Your task to perform on an android device: Open the calendar and show me this week's events? Image 0: 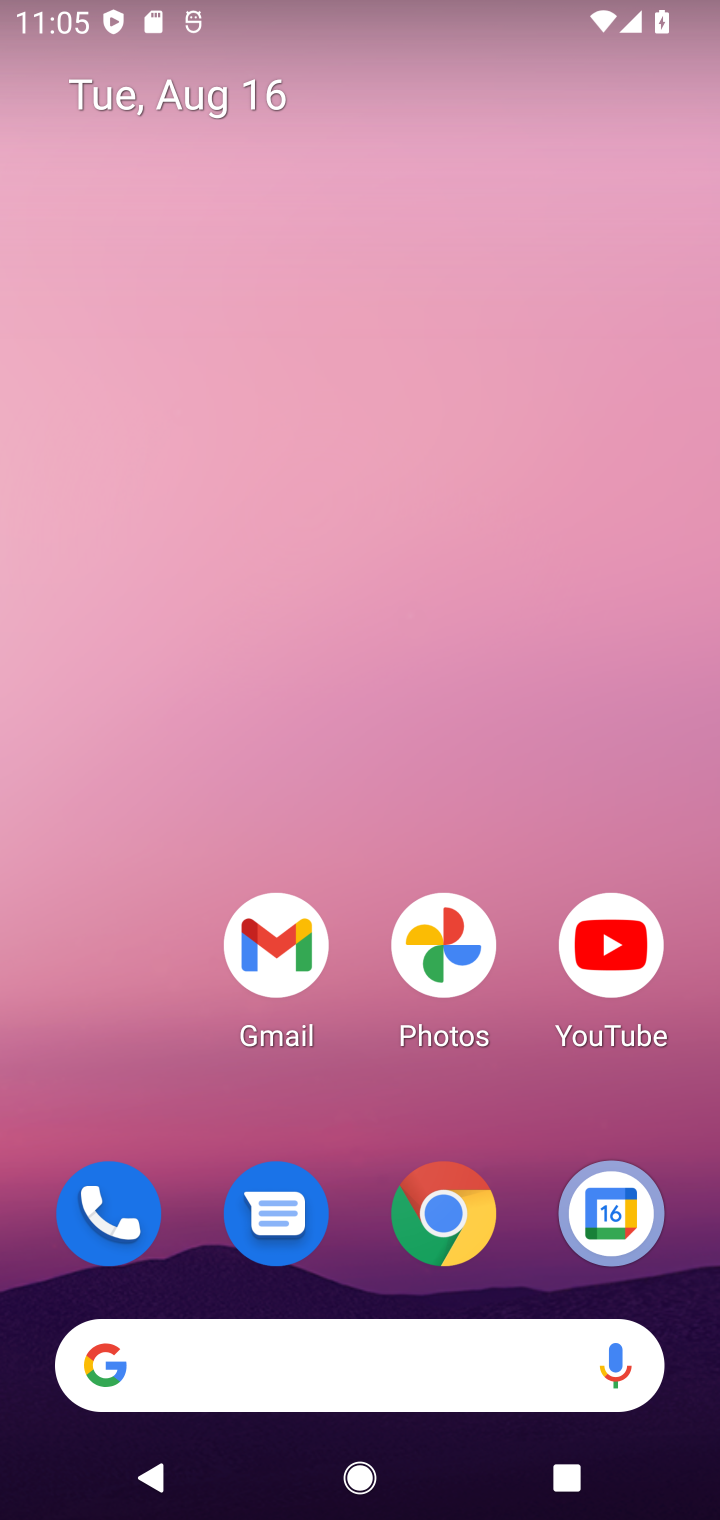
Step 0: drag from (432, 563) to (541, 0)
Your task to perform on an android device: Open the calendar and show me this week's events? Image 1: 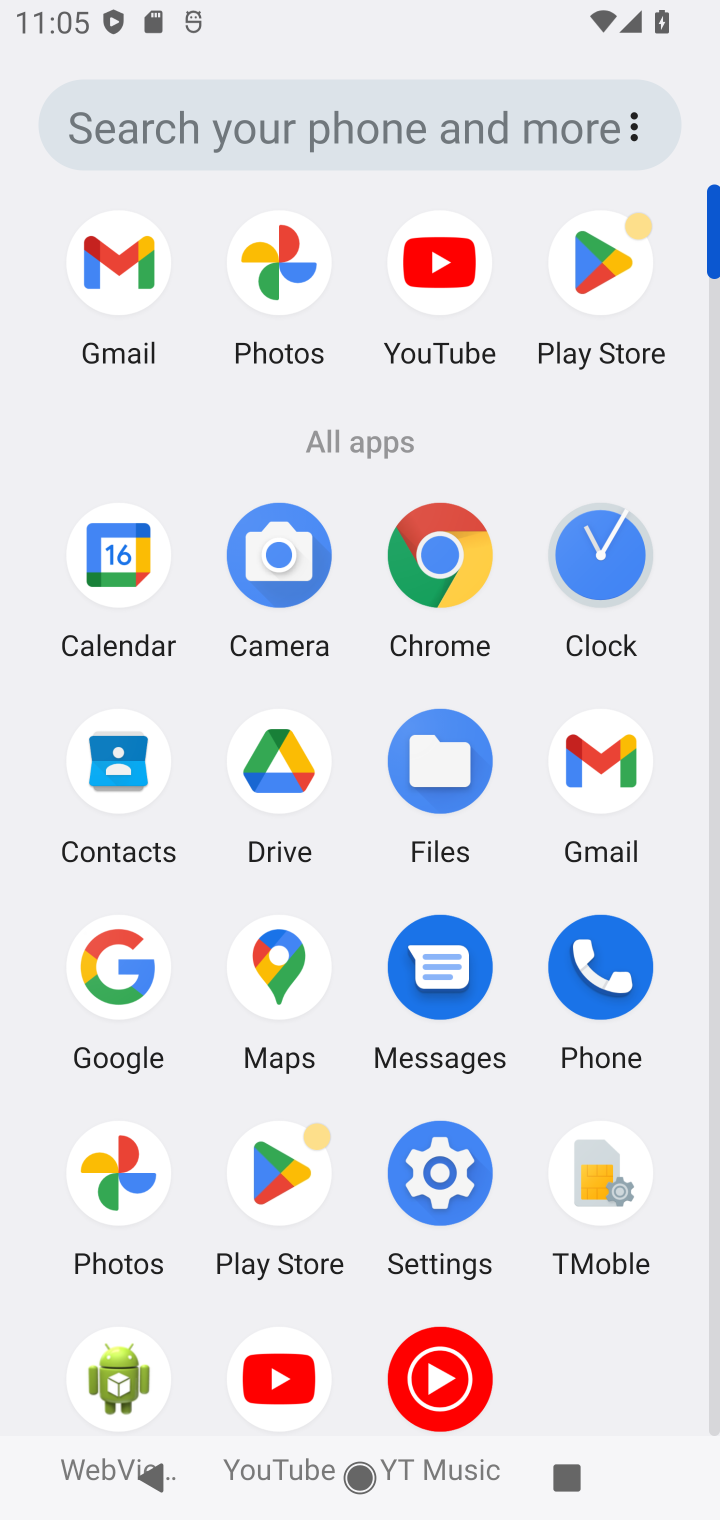
Step 1: click (89, 562)
Your task to perform on an android device: Open the calendar and show me this week's events? Image 2: 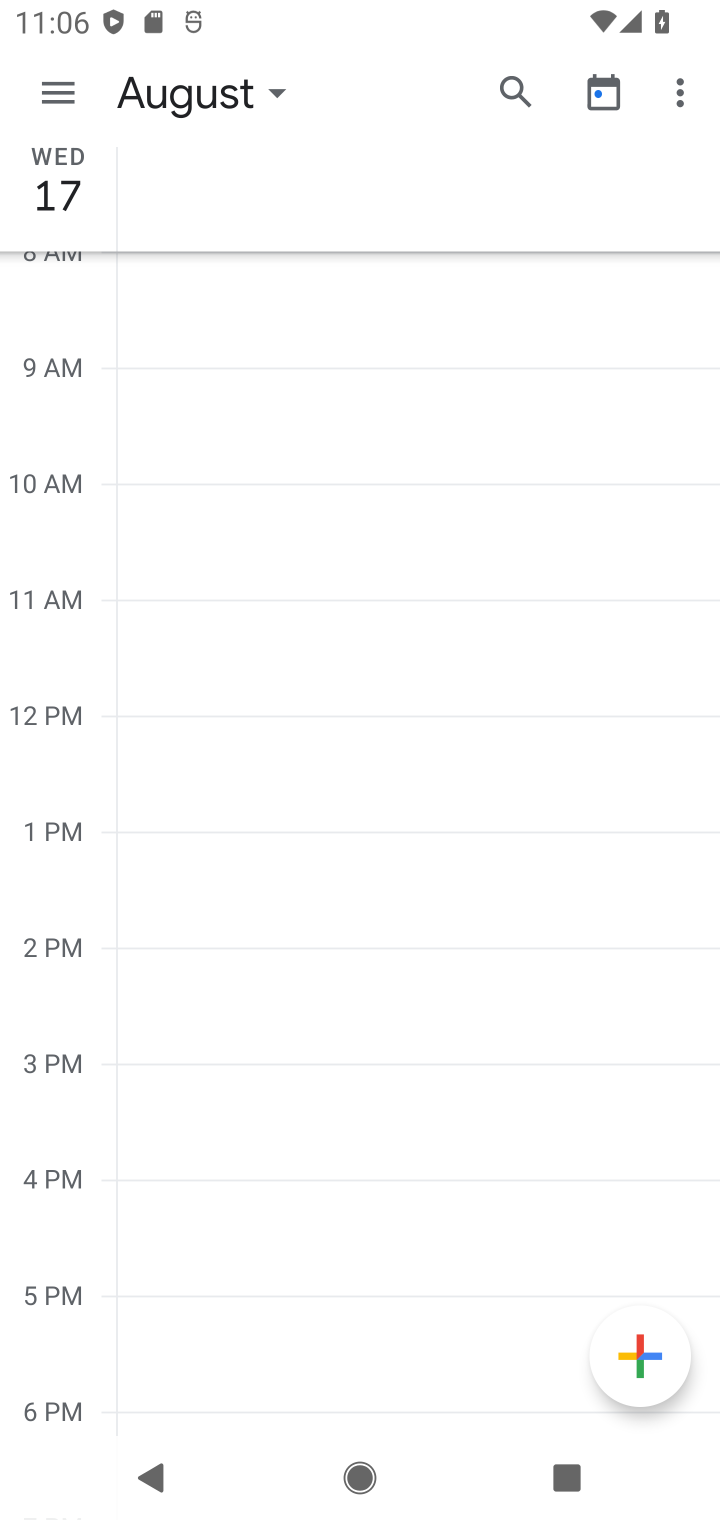
Step 2: click (220, 77)
Your task to perform on an android device: Open the calendar and show me this week's events? Image 3: 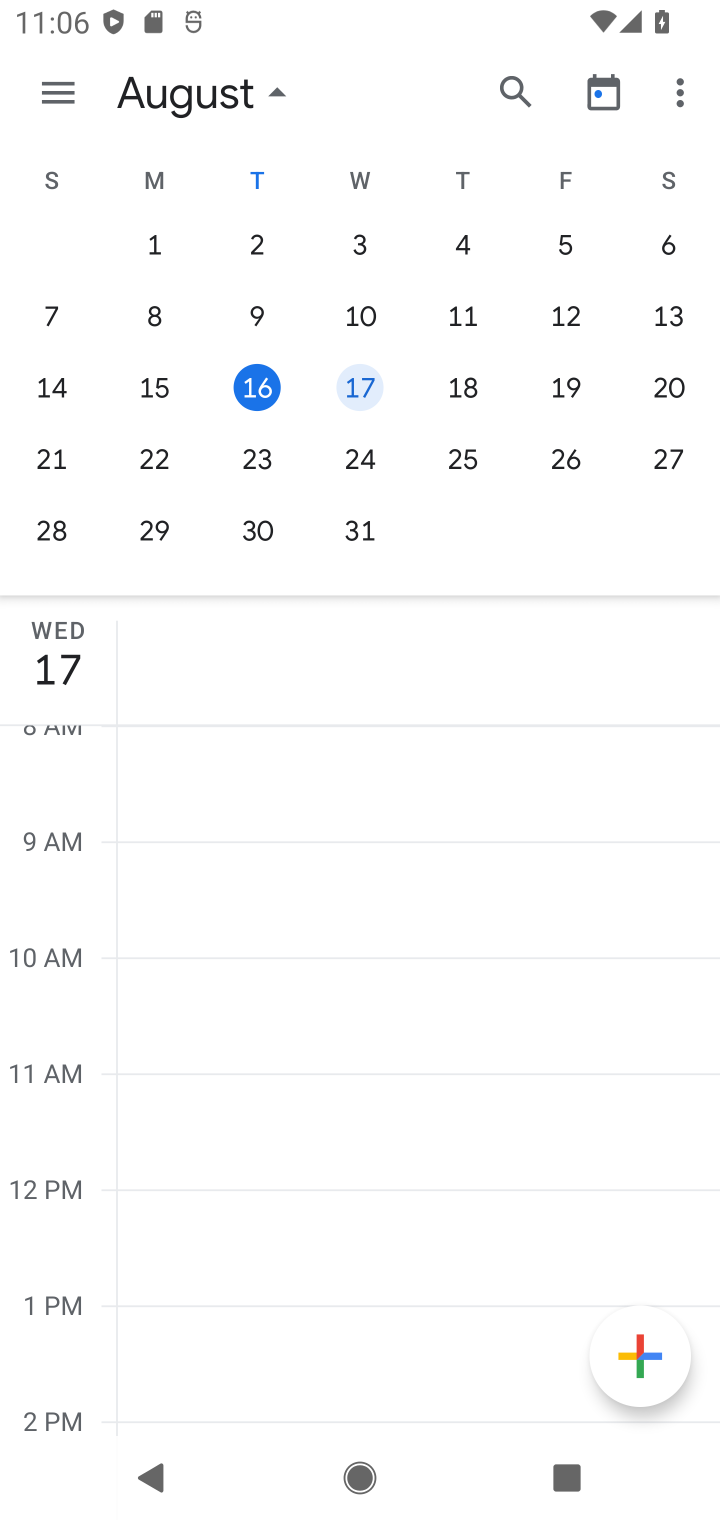
Step 3: click (61, 87)
Your task to perform on an android device: Open the calendar and show me this week's events? Image 4: 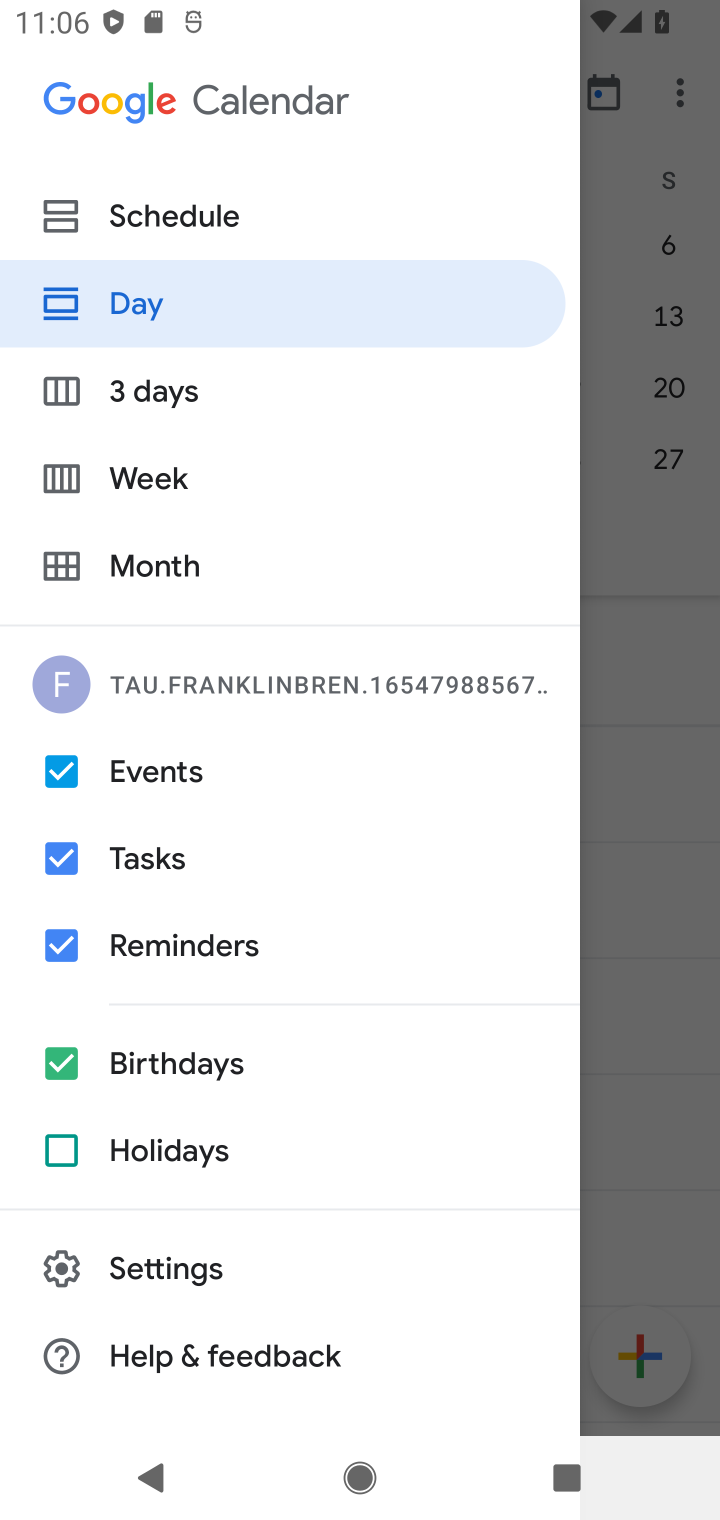
Step 4: click (159, 464)
Your task to perform on an android device: Open the calendar and show me this week's events? Image 5: 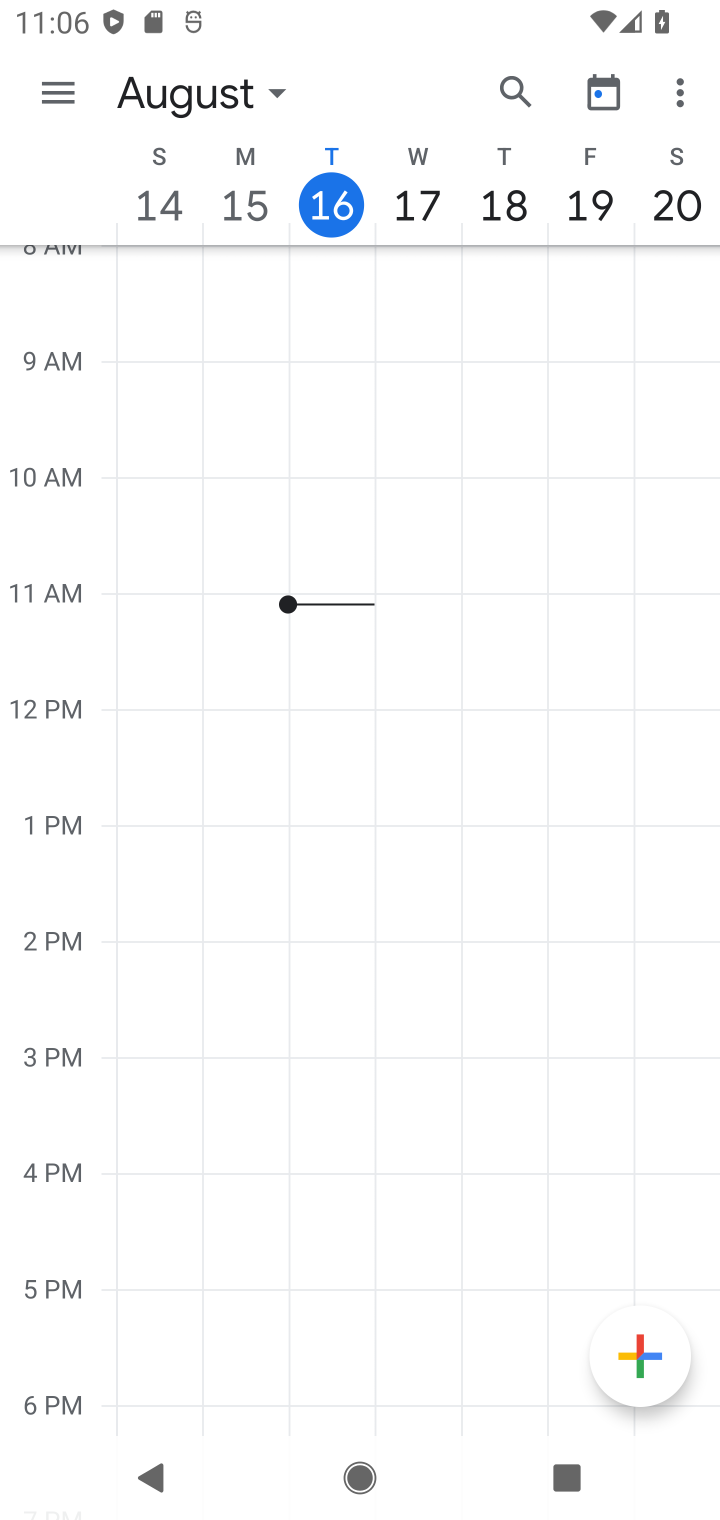
Step 5: task complete